Your task to perform on an android device: Open battery settings Image 0: 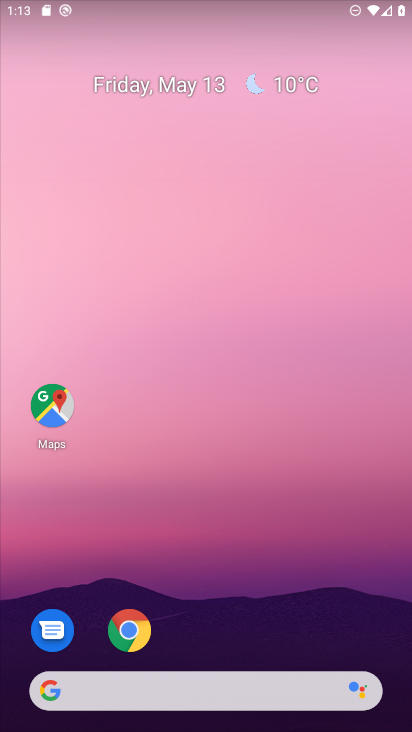
Step 0: drag from (178, 684) to (211, 203)
Your task to perform on an android device: Open battery settings Image 1: 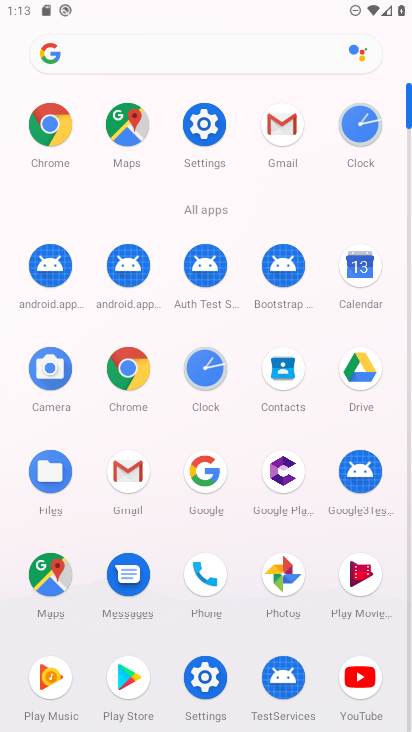
Step 1: click (208, 125)
Your task to perform on an android device: Open battery settings Image 2: 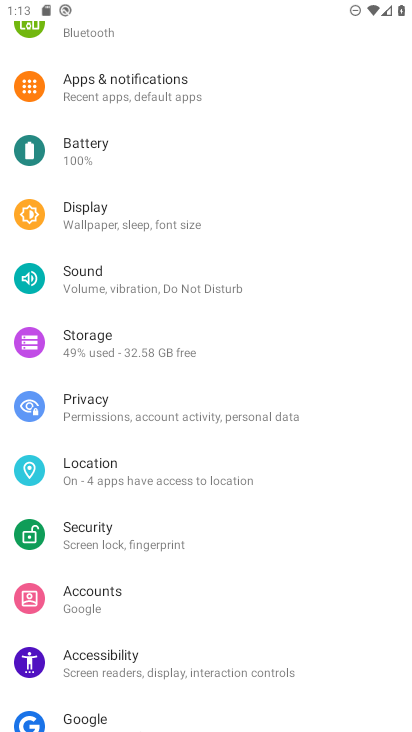
Step 2: click (104, 155)
Your task to perform on an android device: Open battery settings Image 3: 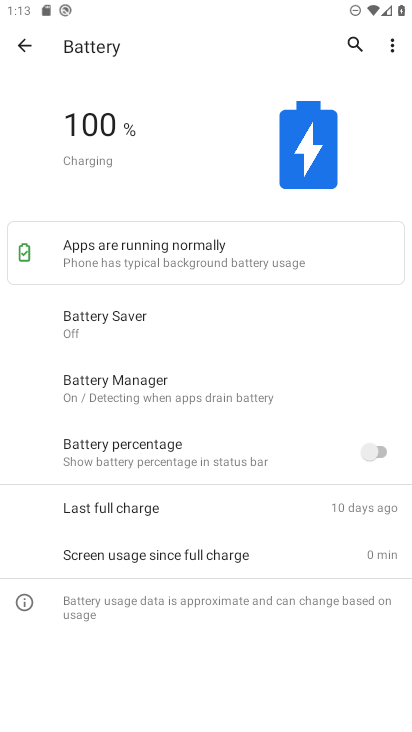
Step 3: task complete